Your task to perform on an android device: Show the shopping cart on walmart.com. Image 0: 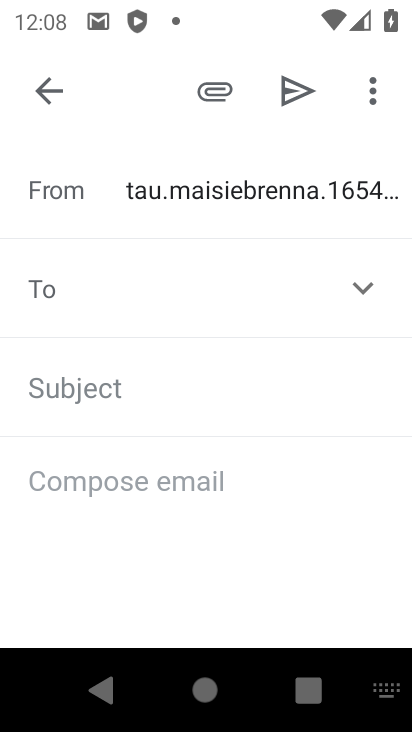
Step 0: task complete